Your task to perform on an android device: check battery use Image 0: 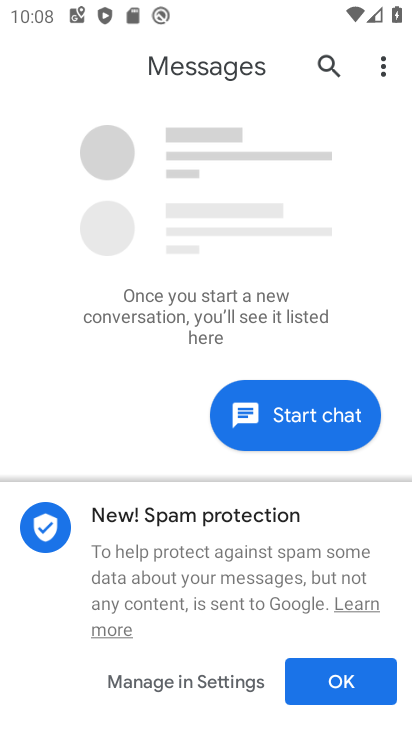
Step 0: press home button
Your task to perform on an android device: check battery use Image 1: 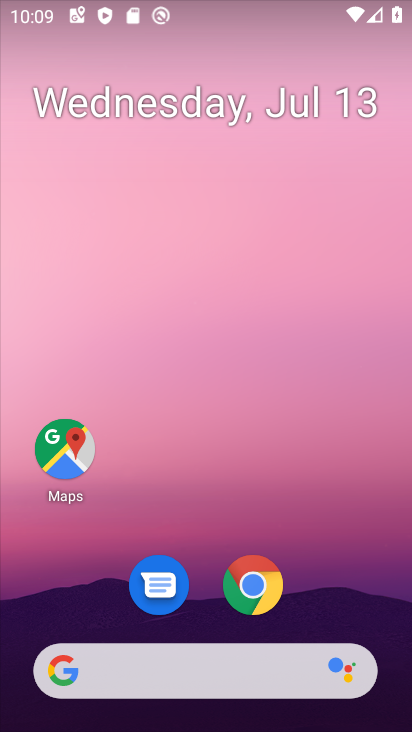
Step 1: drag from (255, 492) to (256, 88)
Your task to perform on an android device: check battery use Image 2: 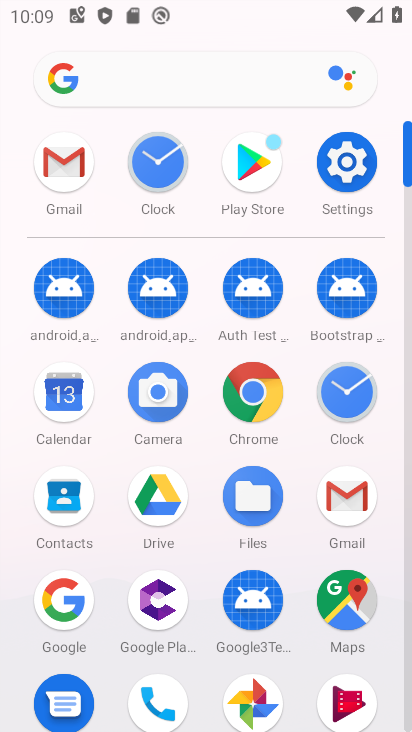
Step 2: click (354, 174)
Your task to perform on an android device: check battery use Image 3: 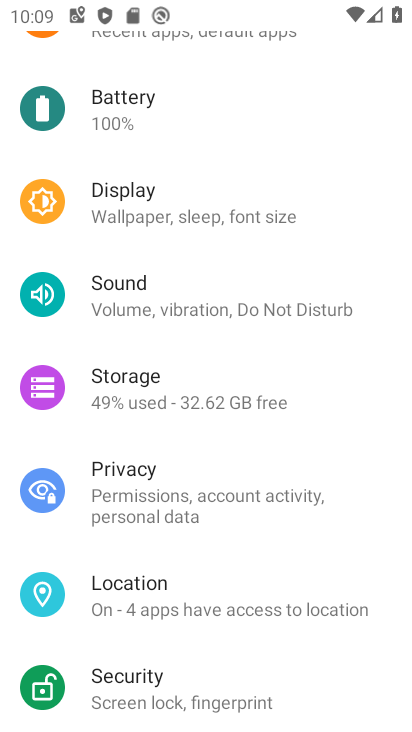
Step 3: click (111, 102)
Your task to perform on an android device: check battery use Image 4: 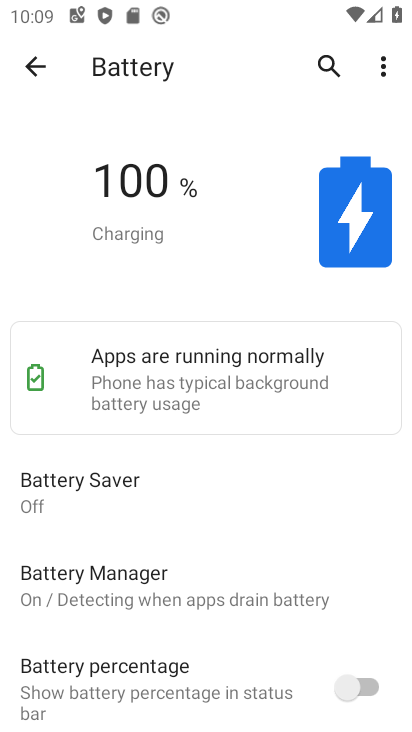
Step 4: click (383, 73)
Your task to perform on an android device: check battery use Image 5: 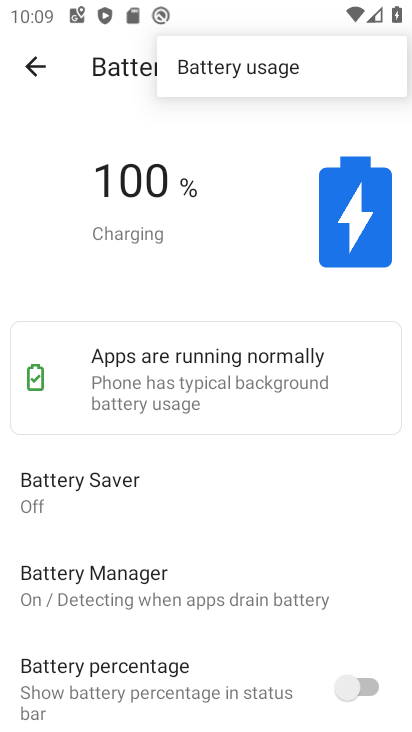
Step 5: click (293, 66)
Your task to perform on an android device: check battery use Image 6: 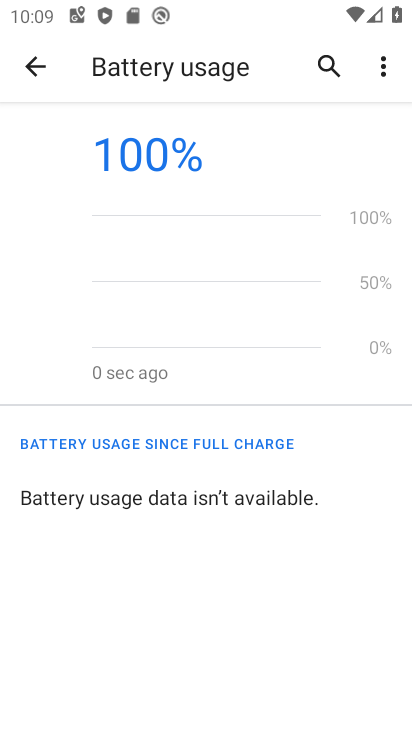
Step 6: task complete